Your task to perform on an android device: What's on my calendar tomorrow? Image 0: 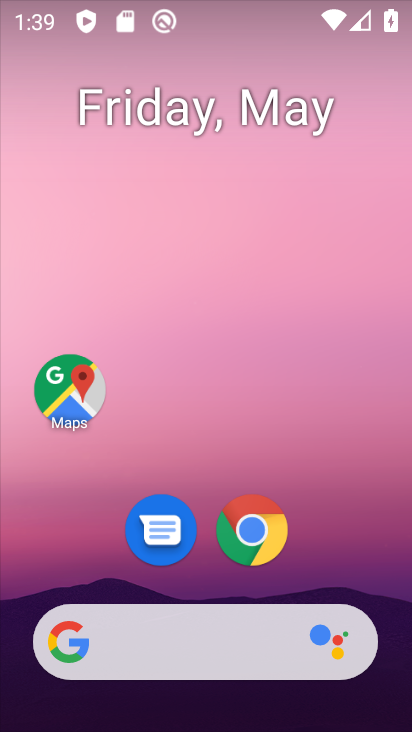
Step 0: drag from (233, 579) to (300, 142)
Your task to perform on an android device: What's on my calendar tomorrow? Image 1: 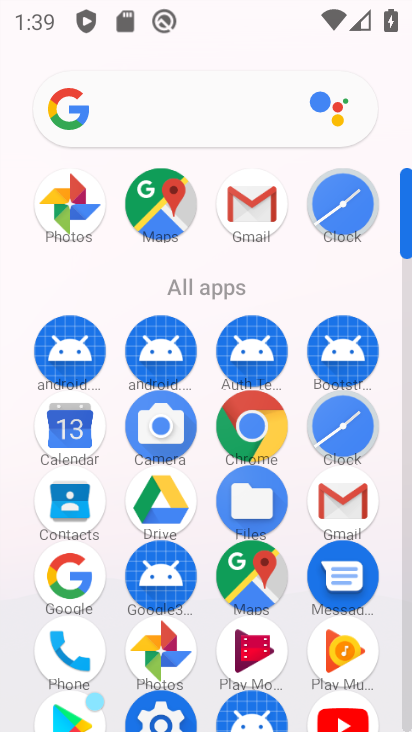
Step 1: click (82, 439)
Your task to perform on an android device: What's on my calendar tomorrow? Image 2: 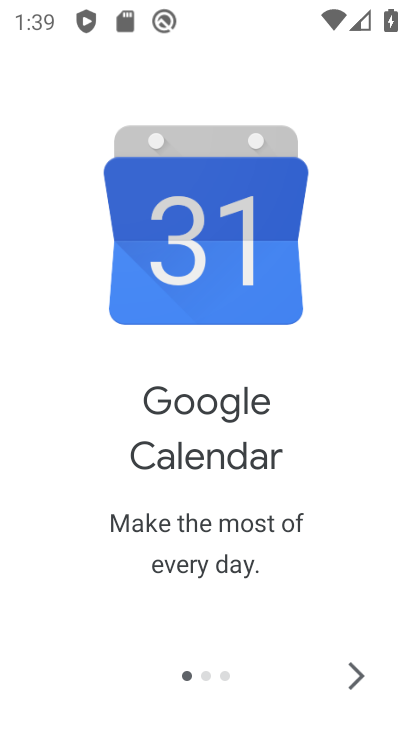
Step 2: click (358, 674)
Your task to perform on an android device: What's on my calendar tomorrow? Image 3: 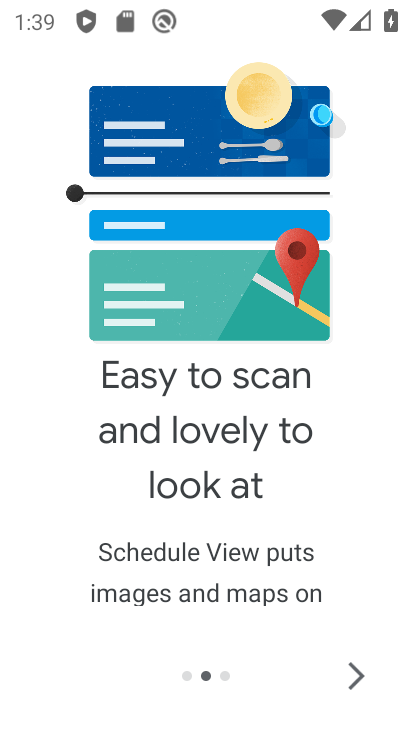
Step 3: click (360, 675)
Your task to perform on an android device: What's on my calendar tomorrow? Image 4: 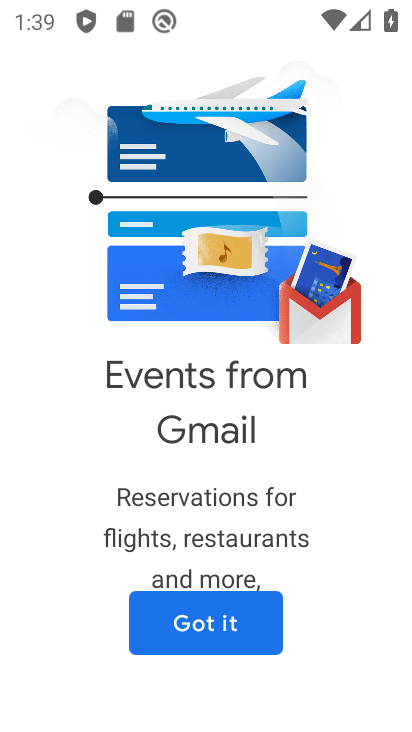
Step 4: click (247, 634)
Your task to perform on an android device: What's on my calendar tomorrow? Image 5: 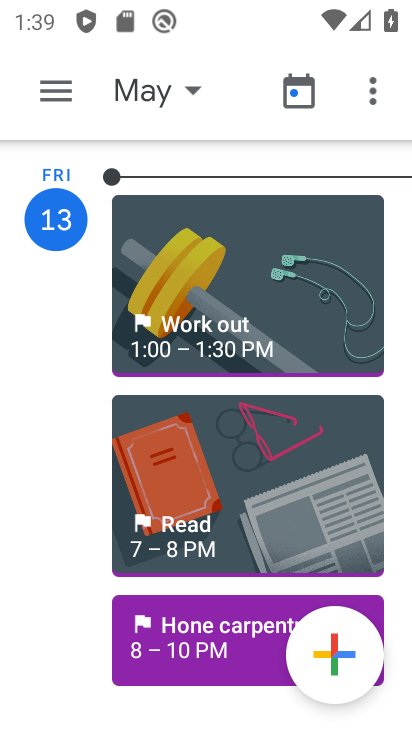
Step 5: click (54, 86)
Your task to perform on an android device: What's on my calendar tomorrow? Image 6: 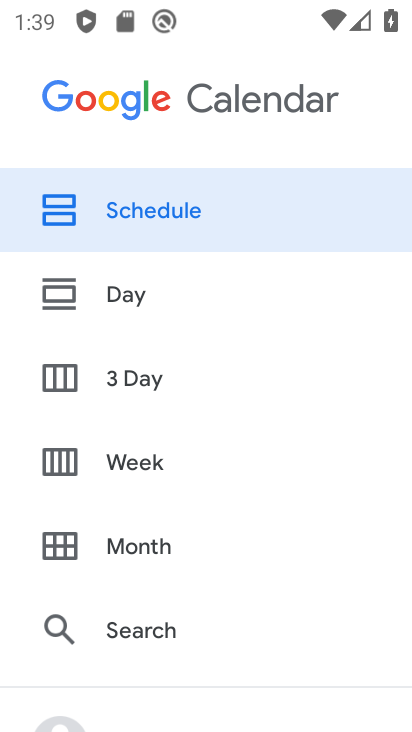
Step 6: click (140, 372)
Your task to perform on an android device: What's on my calendar tomorrow? Image 7: 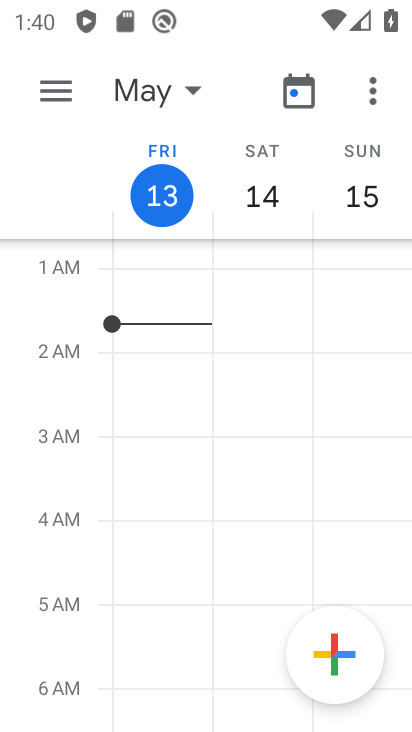
Step 7: task complete